Your task to perform on an android device: turn on airplane mode Image 0: 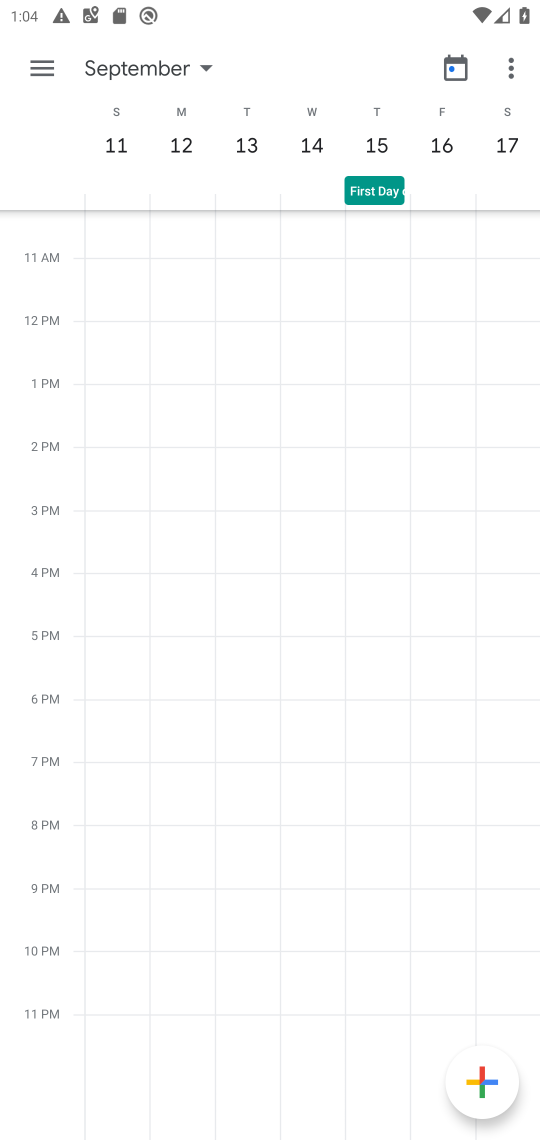
Step 0: press home button
Your task to perform on an android device: turn on airplane mode Image 1: 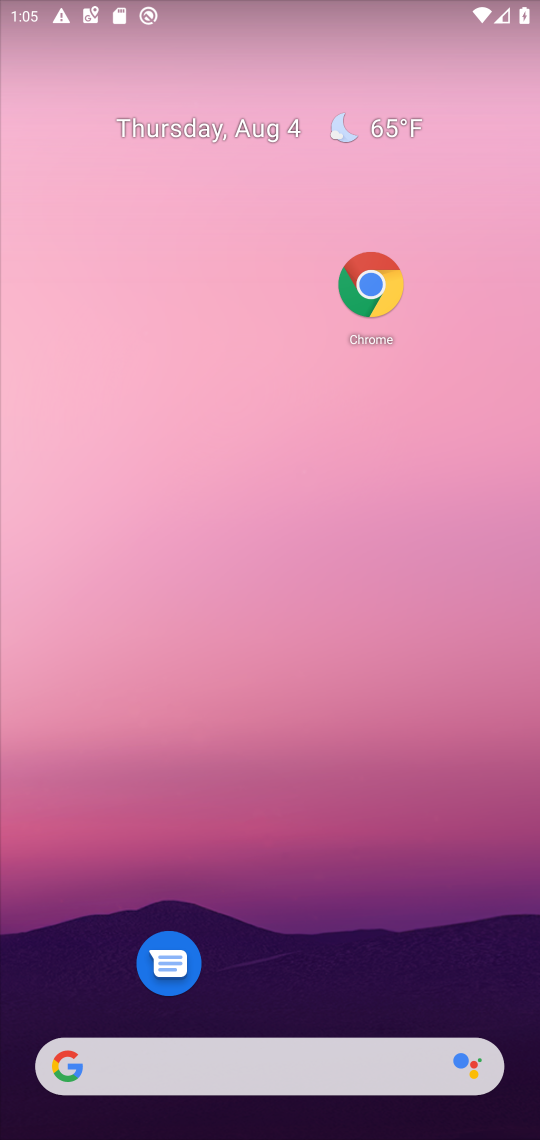
Step 1: drag from (251, 967) to (243, 351)
Your task to perform on an android device: turn on airplane mode Image 2: 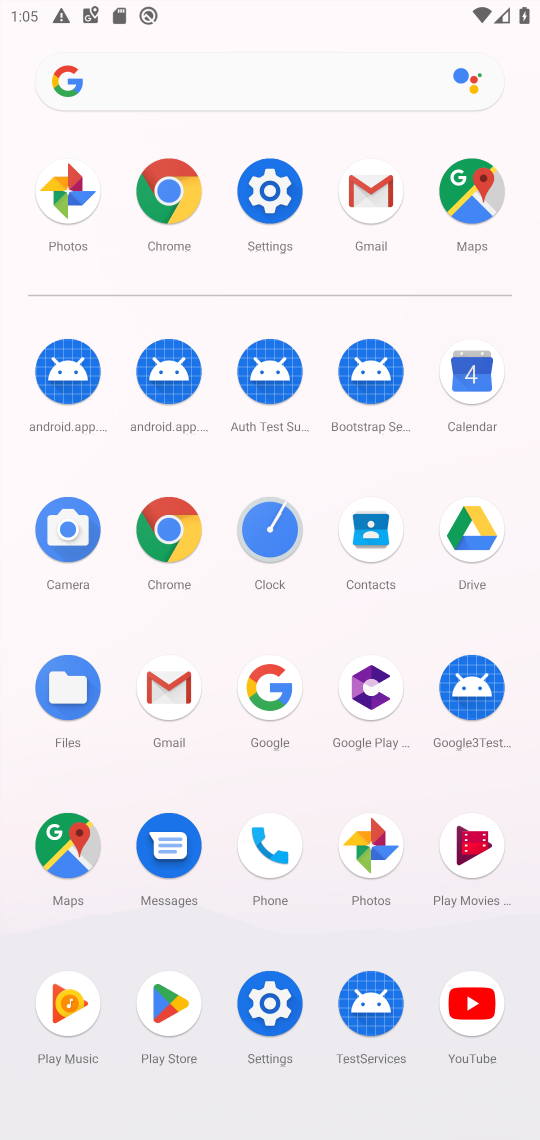
Step 2: click (275, 179)
Your task to perform on an android device: turn on airplane mode Image 3: 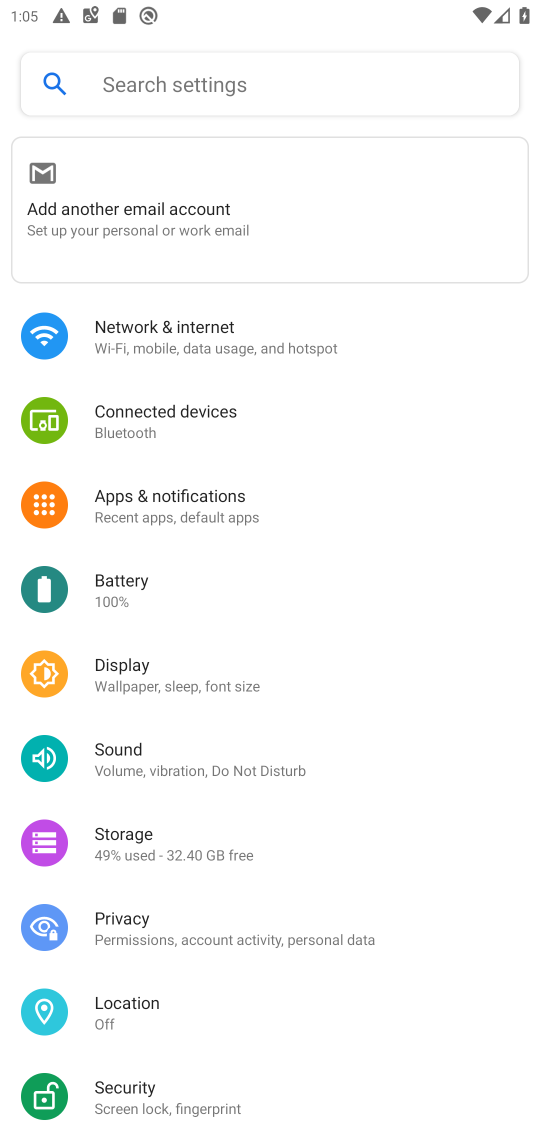
Step 3: click (213, 327)
Your task to perform on an android device: turn on airplane mode Image 4: 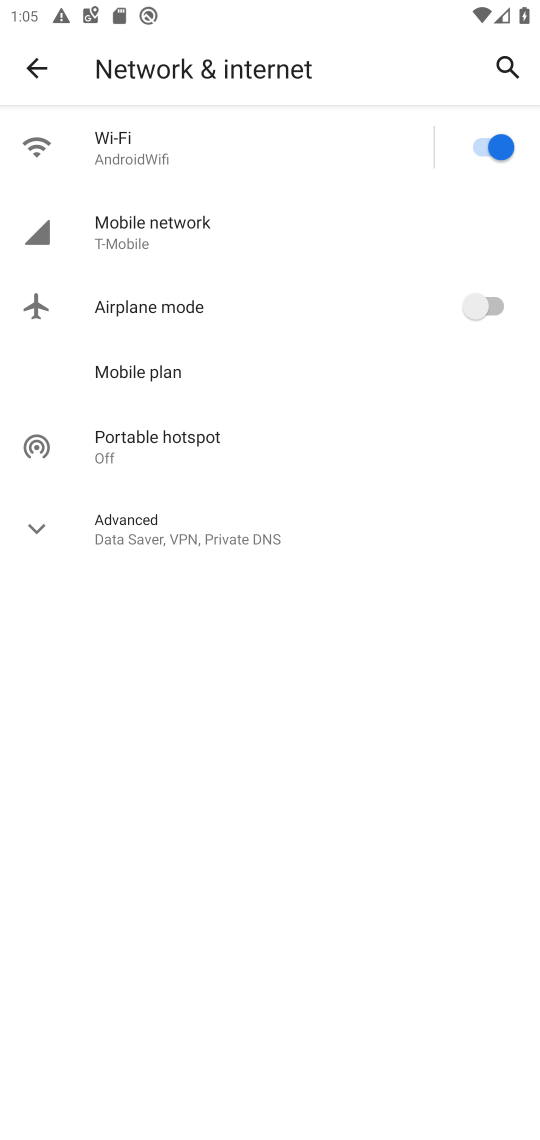
Step 4: click (499, 316)
Your task to perform on an android device: turn on airplane mode Image 5: 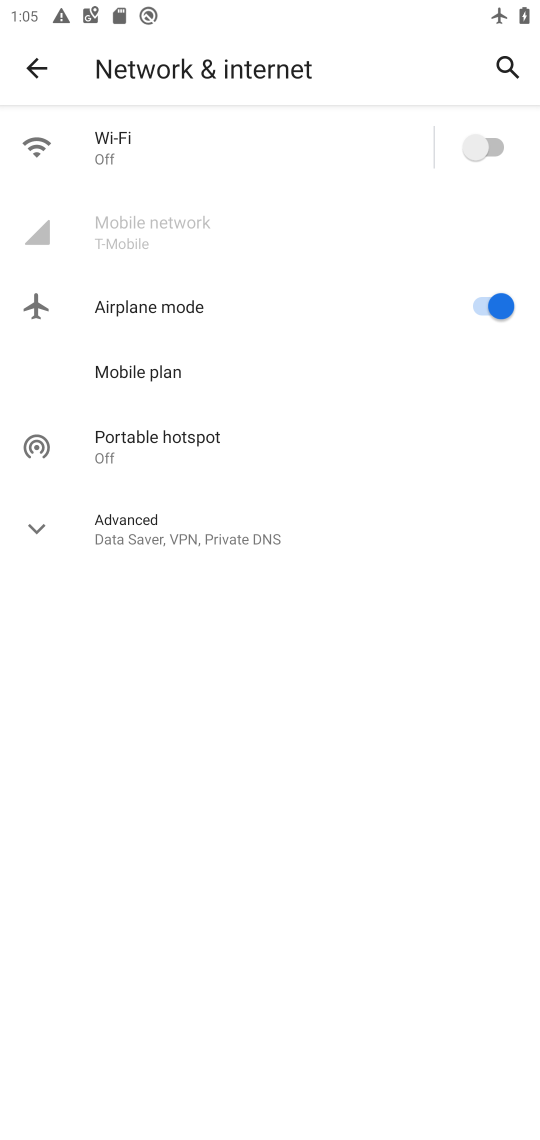
Step 5: task complete